Your task to perform on an android device: turn pop-ups off in chrome Image 0: 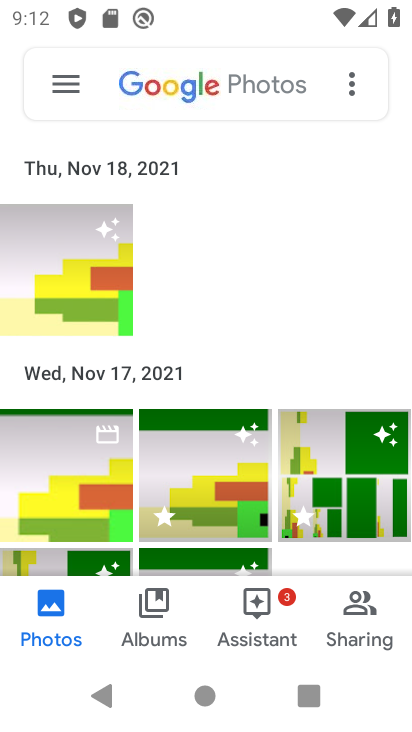
Step 0: press home button
Your task to perform on an android device: turn pop-ups off in chrome Image 1: 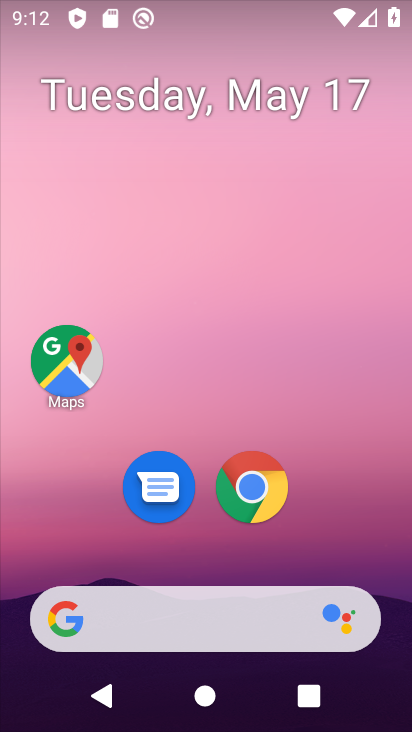
Step 1: press home button
Your task to perform on an android device: turn pop-ups off in chrome Image 2: 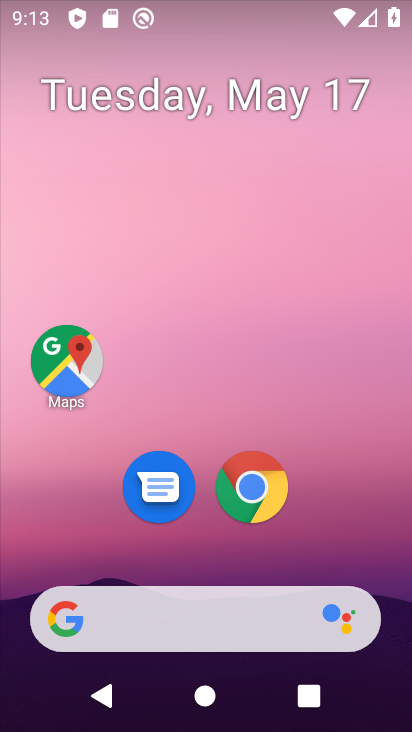
Step 2: drag from (286, 646) to (290, 194)
Your task to perform on an android device: turn pop-ups off in chrome Image 3: 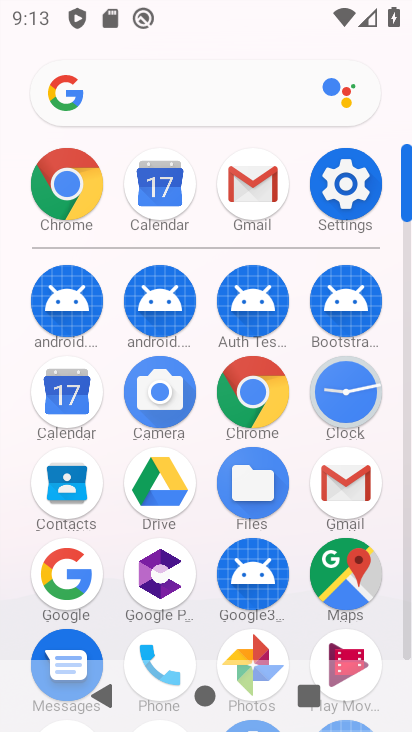
Step 3: click (80, 196)
Your task to perform on an android device: turn pop-ups off in chrome Image 4: 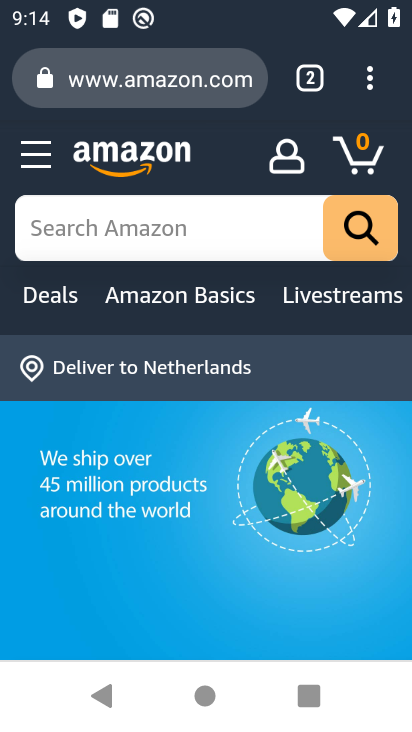
Step 4: click (352, 97)
Your task to perform on an android device: turn pop-ups off in chrome Image 5: 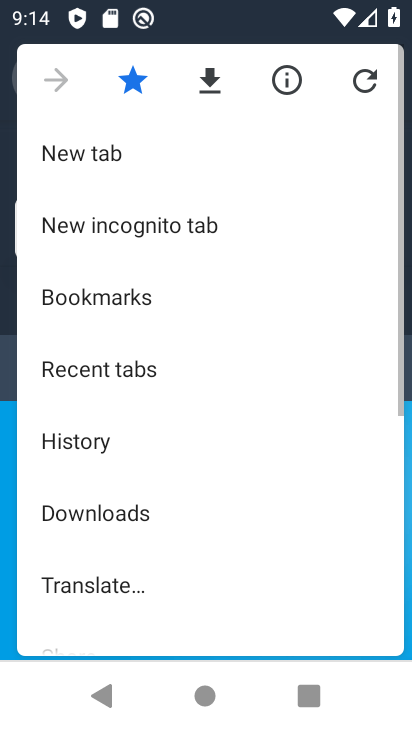
Step 5: drag from (204, 512) to (275, 282)
Your task to perform on an android device: turn pop-ups off in chrome Image 6: 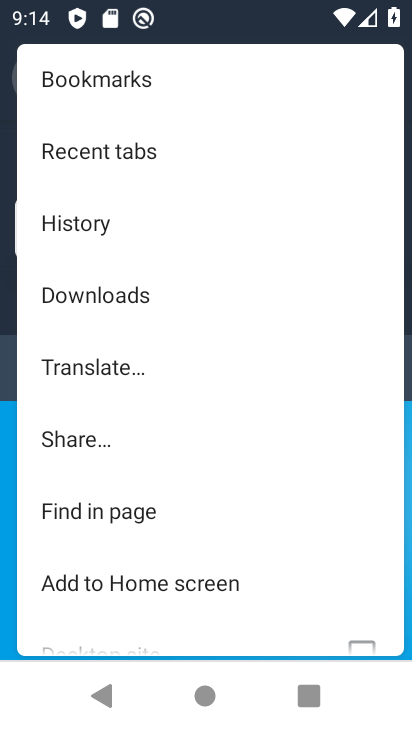
Step 6: drag from (166, 519) to (210, 343)
Your task to perform on an android device: turn pop-ups off in chrome Image 7: 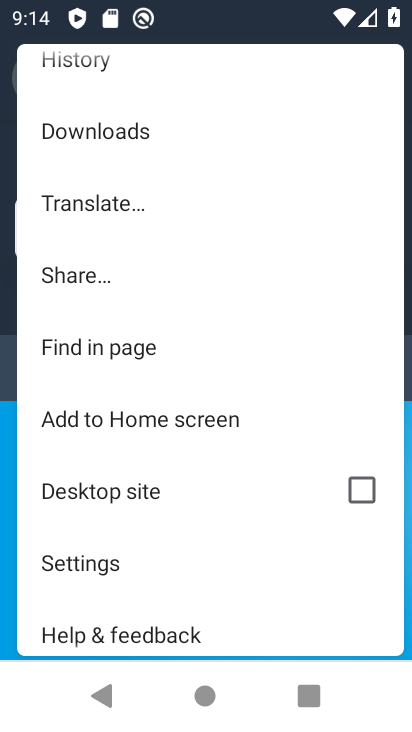
Step 7: click (122, 562)
Your task to perform on an android device: turn pop-ups off in chrome Image 8: 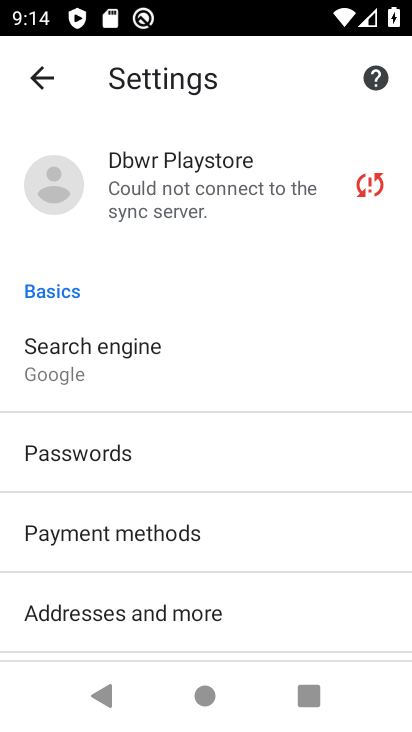
Step 8: drag from (113, 514) to (135, 251)
Your task to perform on an android device: turn pop-ups off in chrome Image 9: 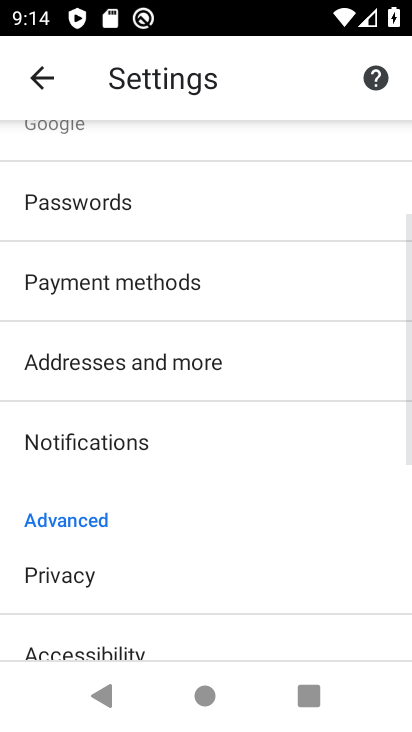
Step 9: drag from (172, 522) to (182, 303)
Your task to perform on an android device: turn pop-ups off in chrome Image 10: 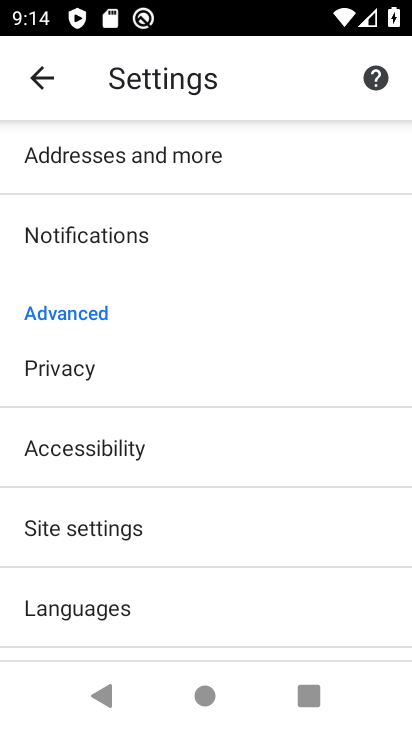
Step 10: click (114, 518)
Your task to perform on an android device: turn pop-ups off in chrome Image 11: 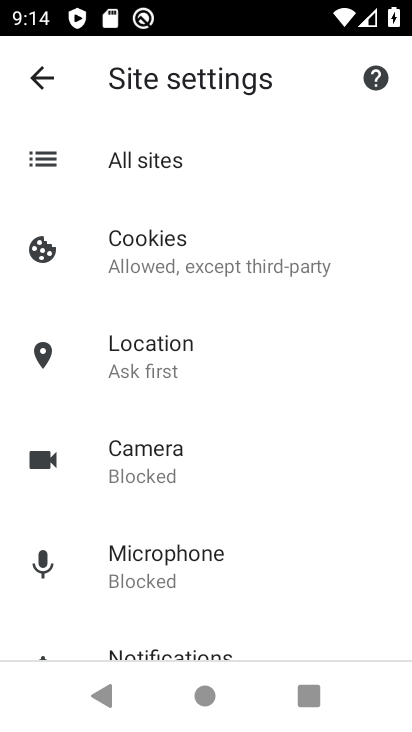
Step 11: drag from (202, 566) to (222, 213)
Your task to perform on an android device: turn pop-ups off in chrome Image 12: 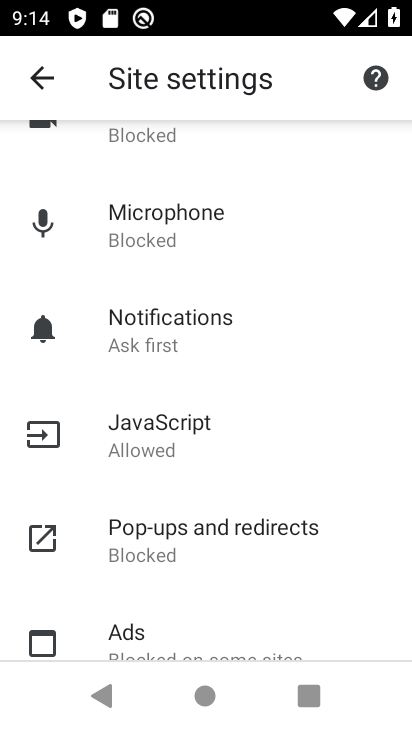
Step 12: click (207, 531)
Your task to perform on an android device: turn pop-ups off in chrome Image 13: 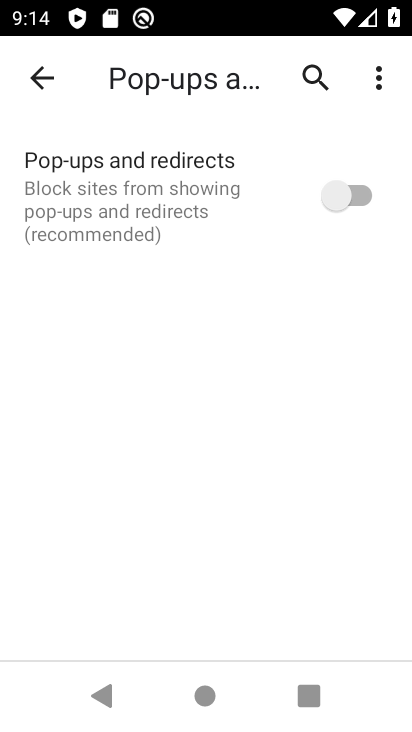
Step 13: click (349, 198)
Your task to perform on an android device: turn pop-ups off in chrome Image 14: 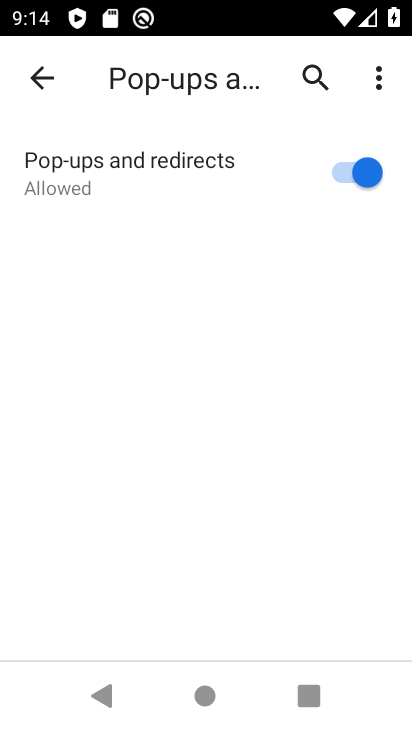
Step 14: click (339, 191)
Your task to perform on an android device: turn pop-ups off in chrome Image 15: 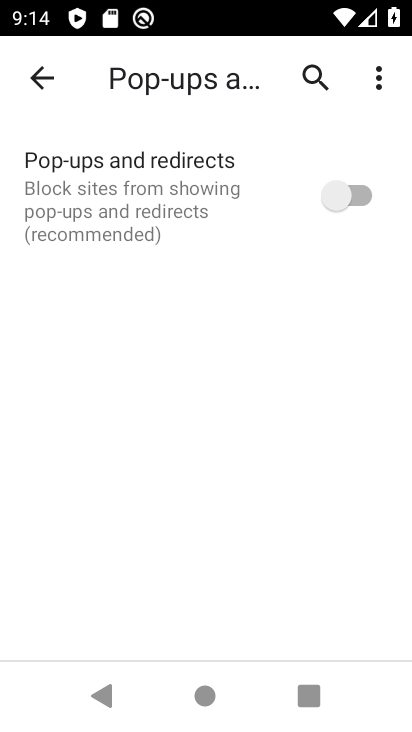
Step 15: task complete